Your task to perform on an android device: Go to privacy settings Image 0: 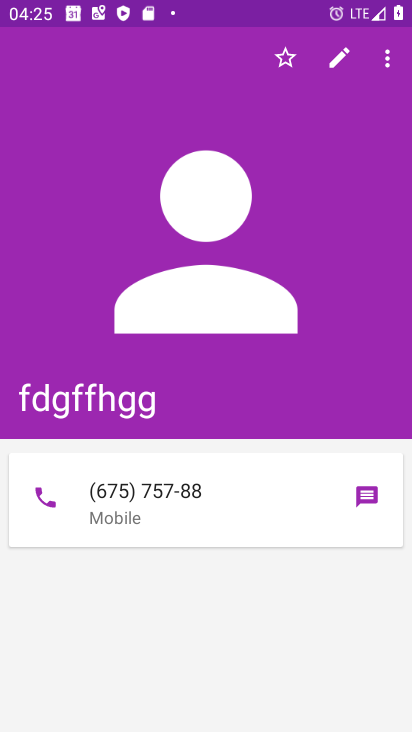
Step 0: press home button
Your task to perform on an android device: Go to privacy settings Image 1: 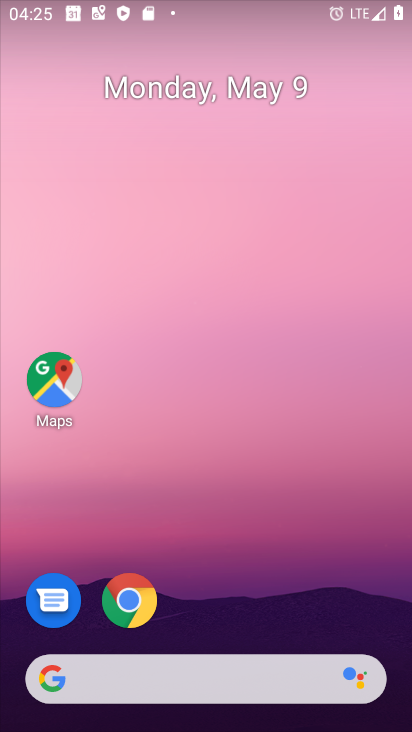
Step 1: drag from (325, 653) to (352, 0)
Your task to perform on an android device: Go to privacy settings Image 2: 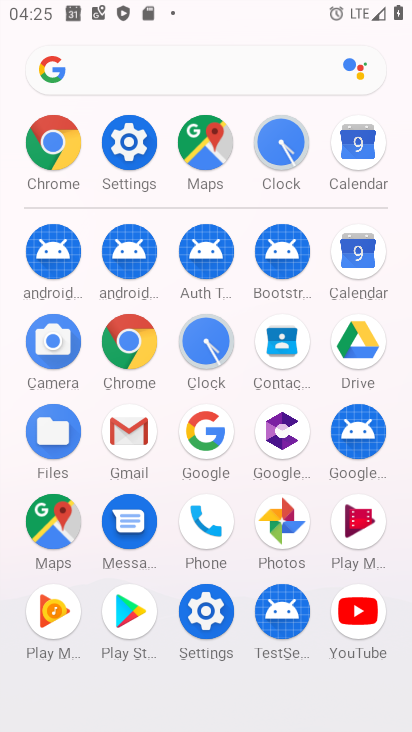
Step 2: click (149, 142)
Your task to perform on an android device: Go to privacy settings Image 3: 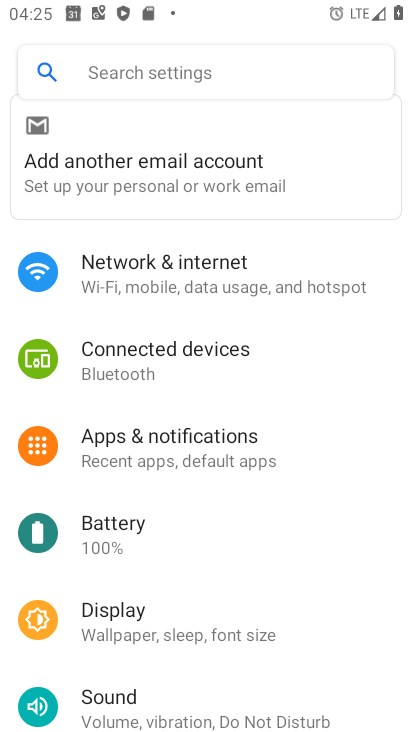
Step 3: drag from (265, 650) to (294, 102)
Your task to perform on an android device: Go to privacy settings Image 4: 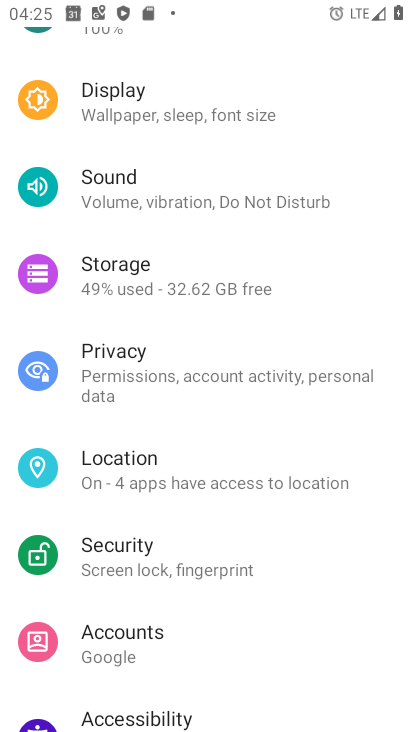
Step 4: click (244, 366)
Your task to perform on an android device: Go to privacy settings Image 5: 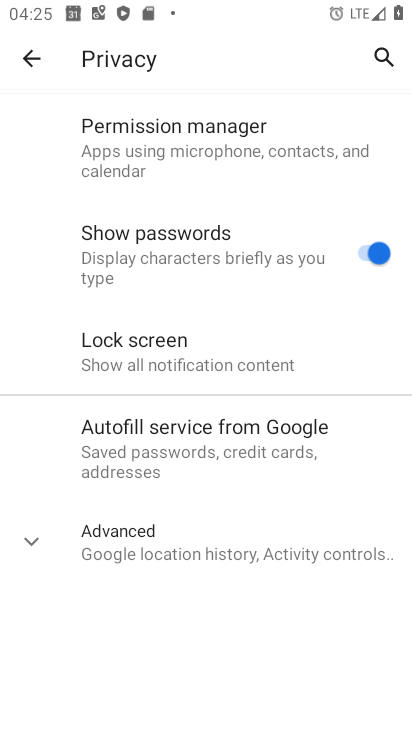
Step 5: task complete